Your task to perform on an android device: move a message to another label in the gmail app Image 0: 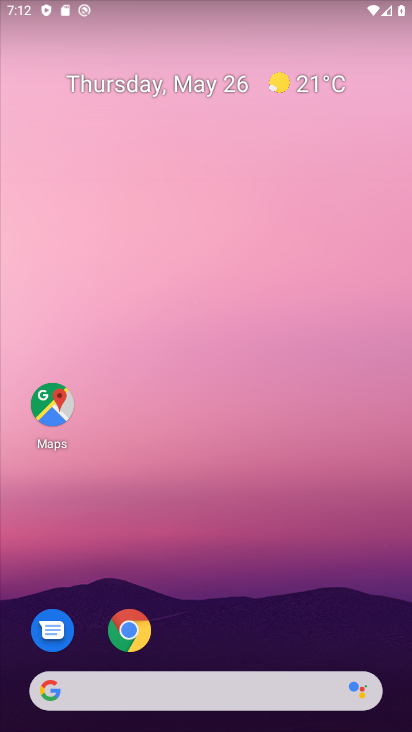
Step 0: drag from (272, 617) to (173, 132)
Your task to perform on an android device: move a message to another label in the gmail app Image 1: 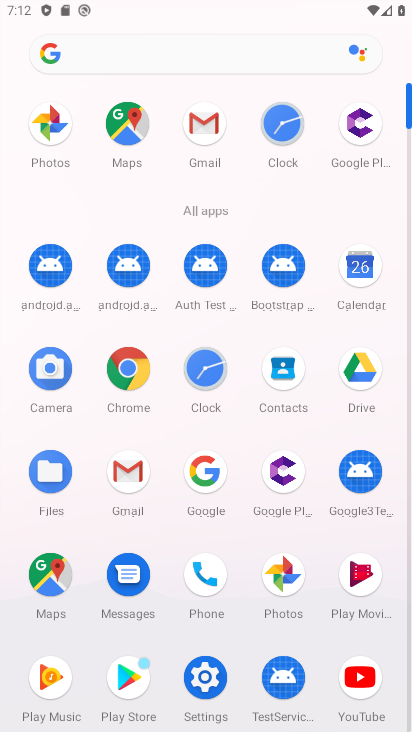
Step 1: click (202, 124)
Your task to perform on an android device: move a message to another label in the gmail app Image 2: 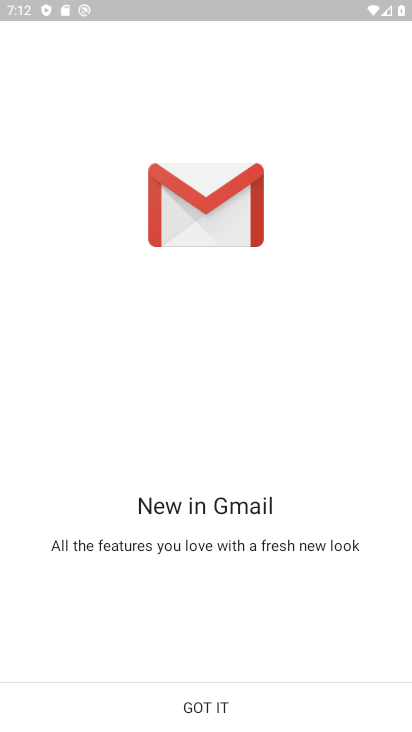
Step 2: click (198, 700)
Your task to perform on an android device: move a message to another label in the gmail app Image 3: 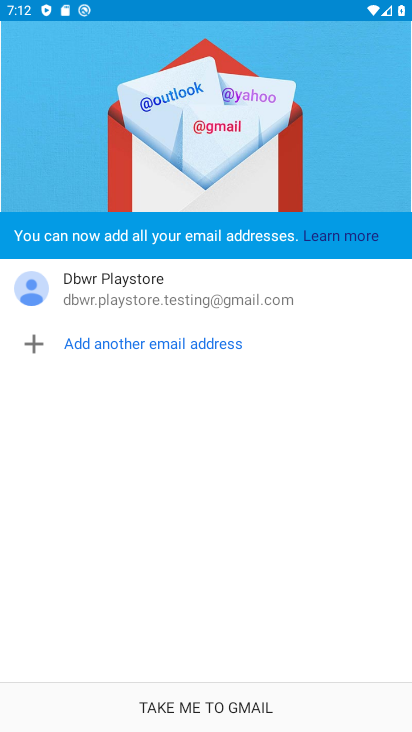
Step 3: click (198, 700)
Your task to perform on an android device: move a message to another label in the gmail app Image 4: 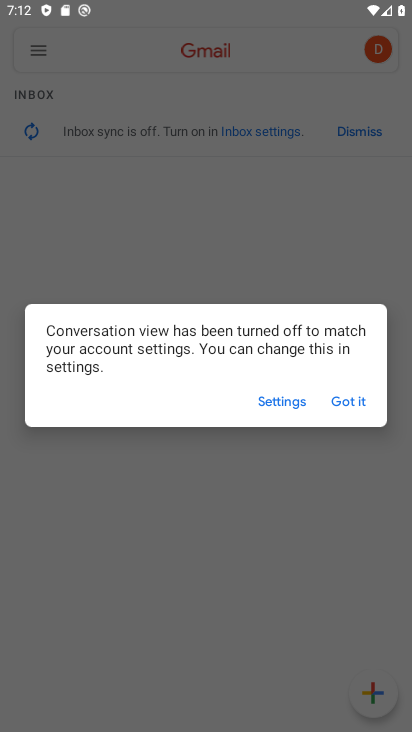
Step 4: click (355, 391)
Your task to perform on an android device: move a message to another label in the gmail app Image 5: 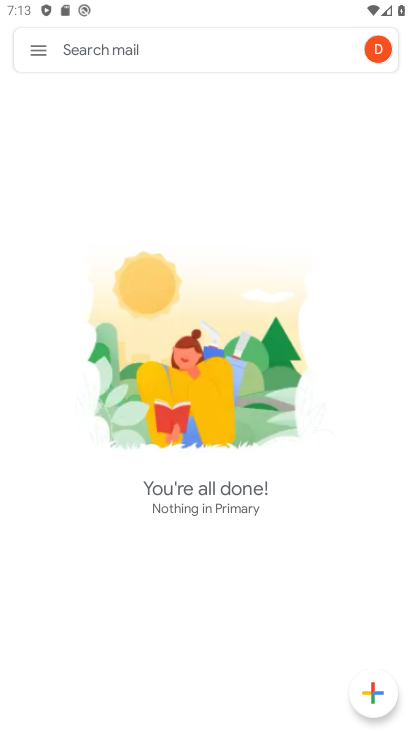
Step 5: click (40, 56)
Your task to perform on an android device: move a message to another label in the gmail app Image 6: 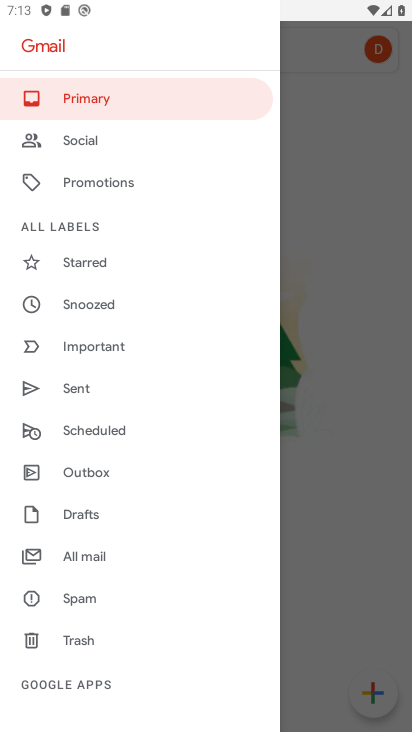
Step 6: drag from (123, 331) to (147, 270)
Your task to perform on an android device: move a message to another label in the gmail app Image 7: 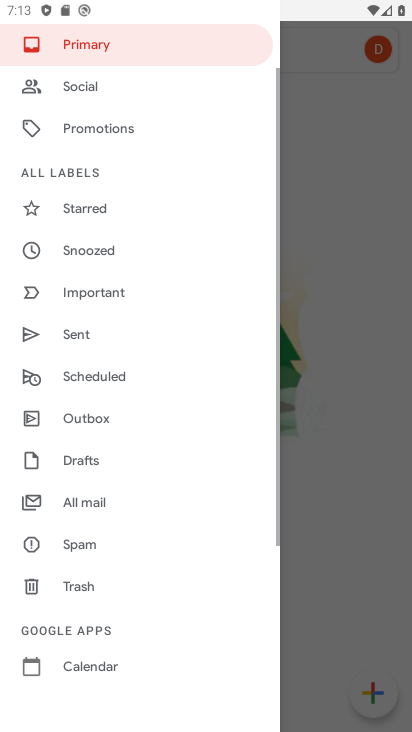
Step 7: drag from (112, 350) to (150, 293)
Your task to perform on an android device: move a message to another label in the gmail app Image 8: 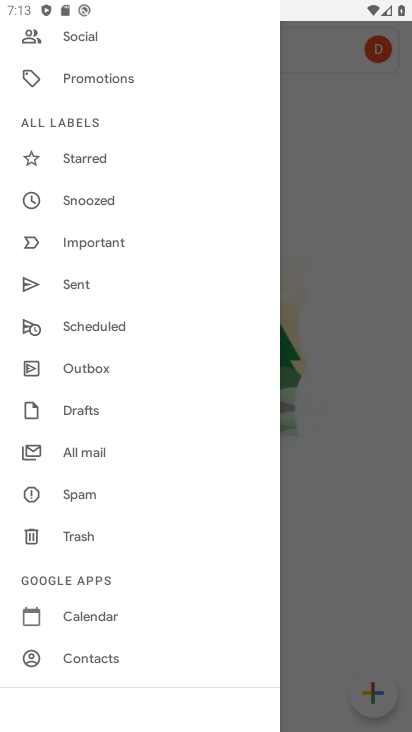
Step 8: click (101, 450)
Your task to perform on an android device: move a message to another label in the gmail app Image 9: 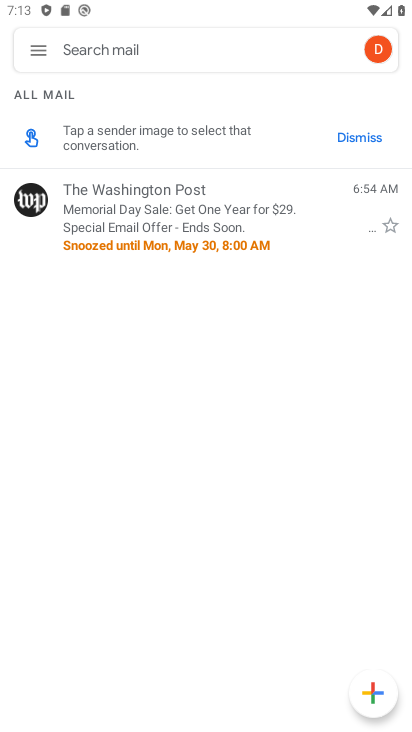
Step 9: click (195, 213)
Your task to perform on an android device: move a message to another label in the gmail app Image 10: 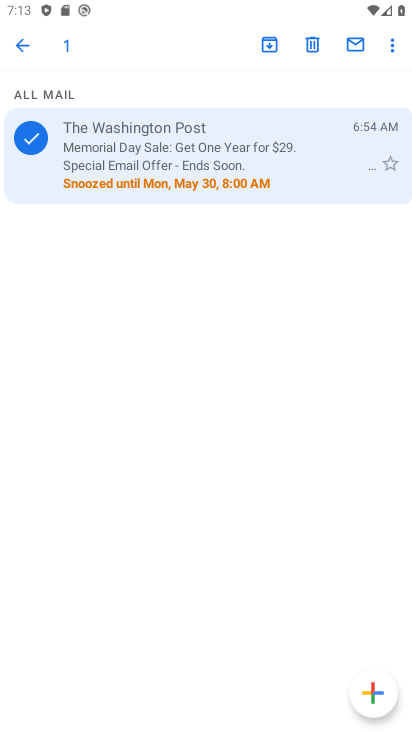
Step 10: click (395, 49)
Your task to perform on an android device: move a message to another label in the gmail app Image 11: 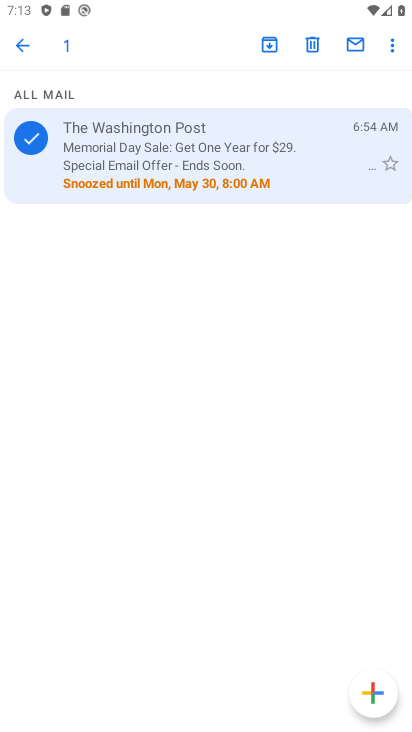
Step 11: click (392, 43)
Your task to perform on an android device: move a message to another label in the gmail app Image 12: 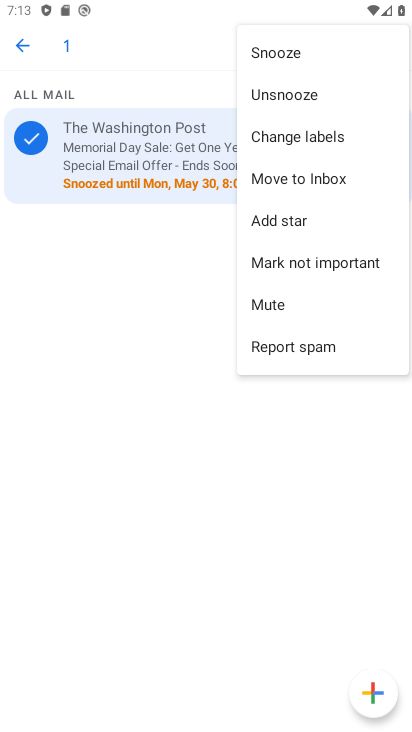
Step 12: click (286, 177)
Your task to perform on an android device: move a message to another label in the gmail app Image 13: 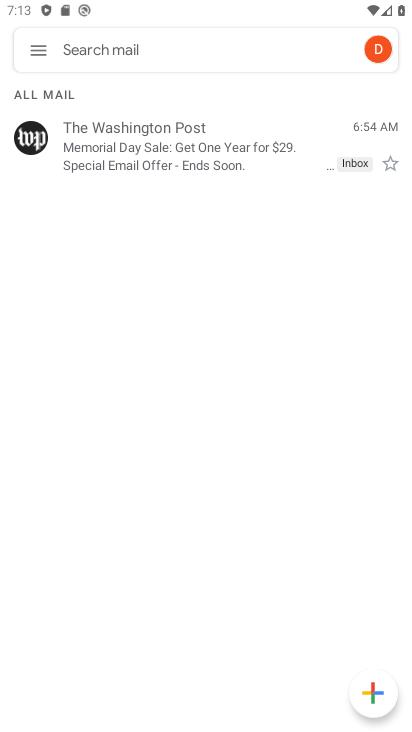
Step 13: task complete